Your task to perform on an android device: uninstall "Contacts" Image 0: 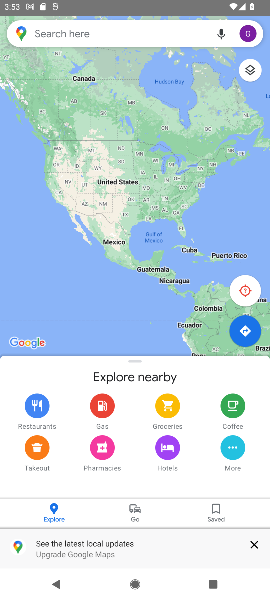
Step 0: press home button
Your task to perform on an android device: uninstall "Contacts" Image 1: 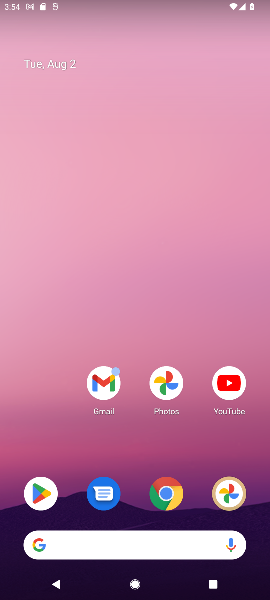
Step 1: click (46, 499)
Your task to perform on an android device: uninstall "Contacts" Image 2: 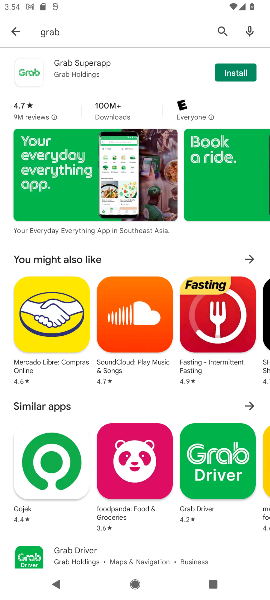
Step 2: click (226, 26)
Your task to perform on an android device: uninstall "Contacts" Image 3: 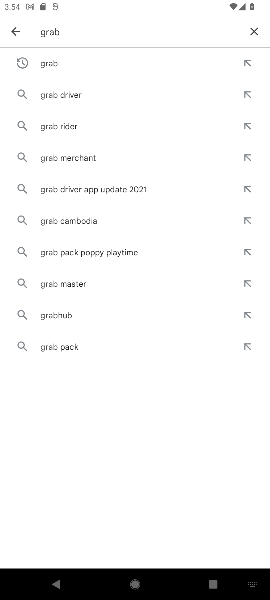
Step 3: click (253, 31)
Your task to perform on an android device: uninstall "Contacts" Image 4: 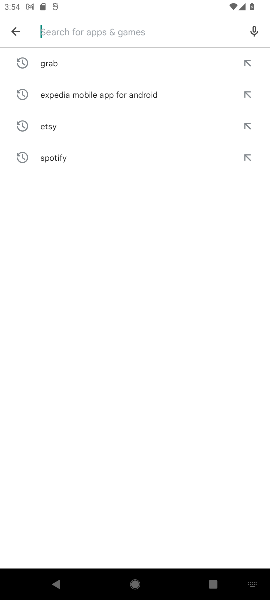
Step 4: type "contacts"
Your task to perform on an android device: uninstall "Contacts" Image 5: 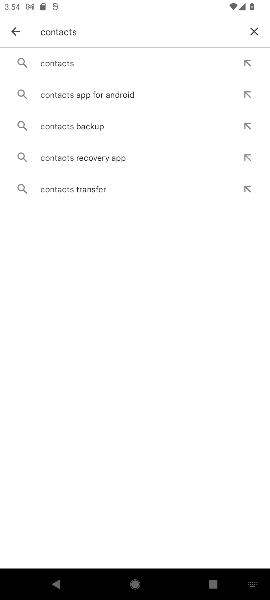
Step 5: click (60, 62)
Your task to perform on an android device: uninstall "Contacts" Image 6: 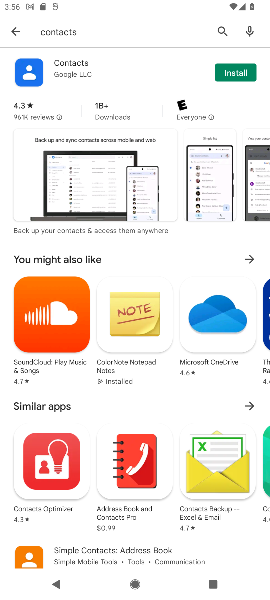
Step 6: task complete